Your task to perform on an android device: Search for a new perfume Image 0: 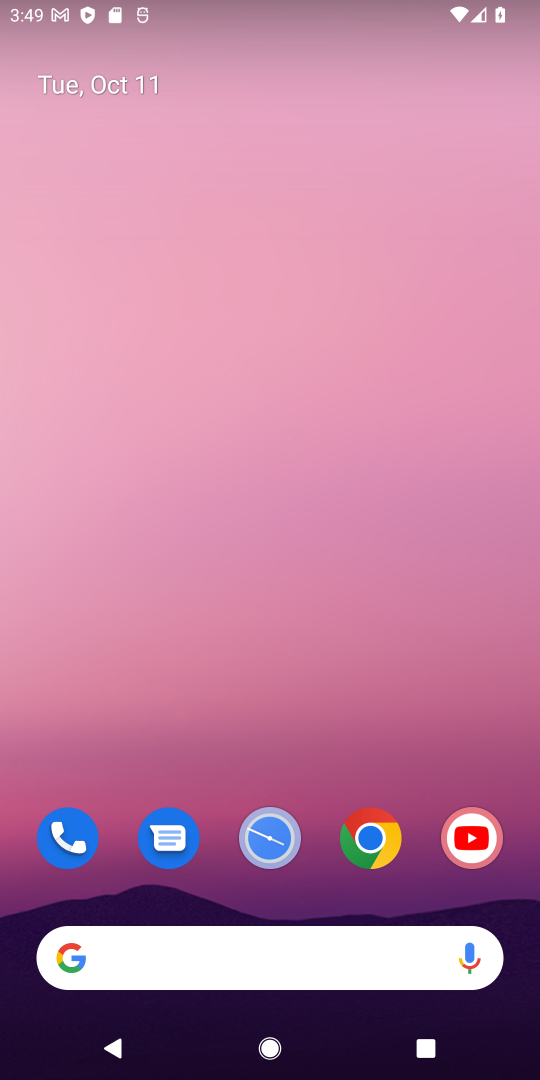
Step 0: click (244, 959)
Your task to perform on an android device: Search for a new perfume Image 1: 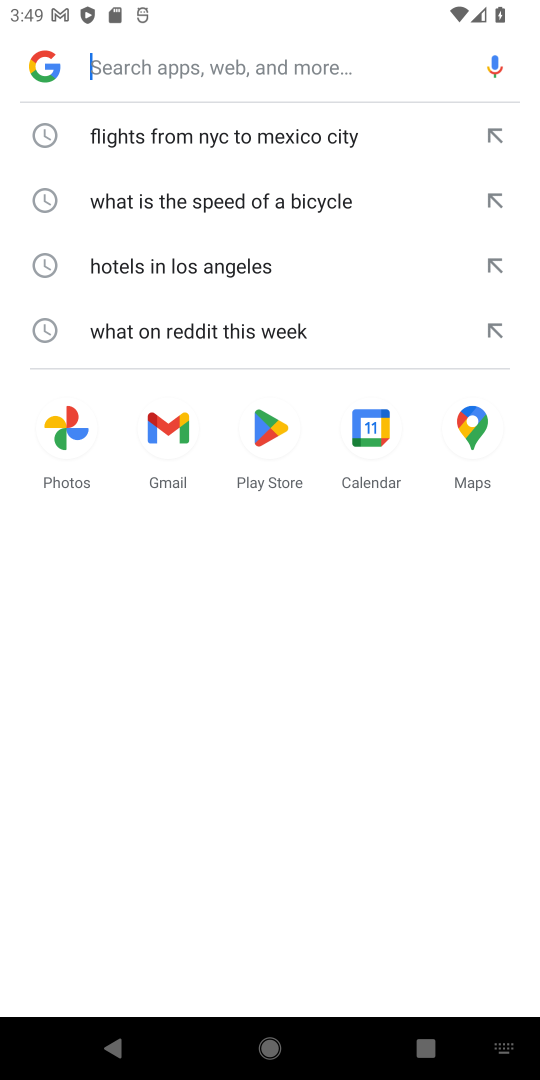
Step 1: click (167, 58)
Your task to perform on an android device: Search for a new perfume Image 2: 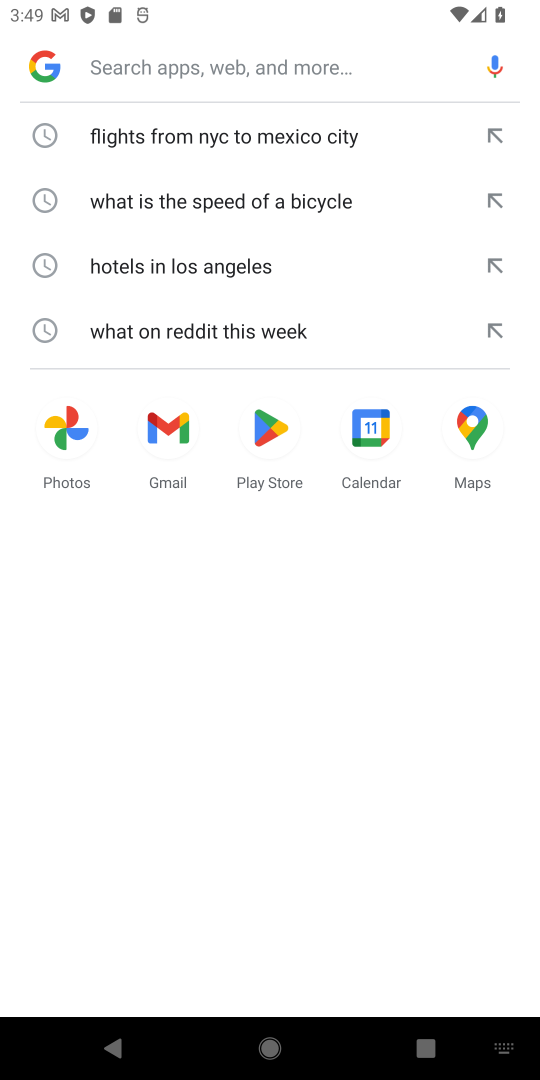
Step 2: type "Search for a new perfume"
Your task to perform on an android device: Search for a new perfume Image 3: 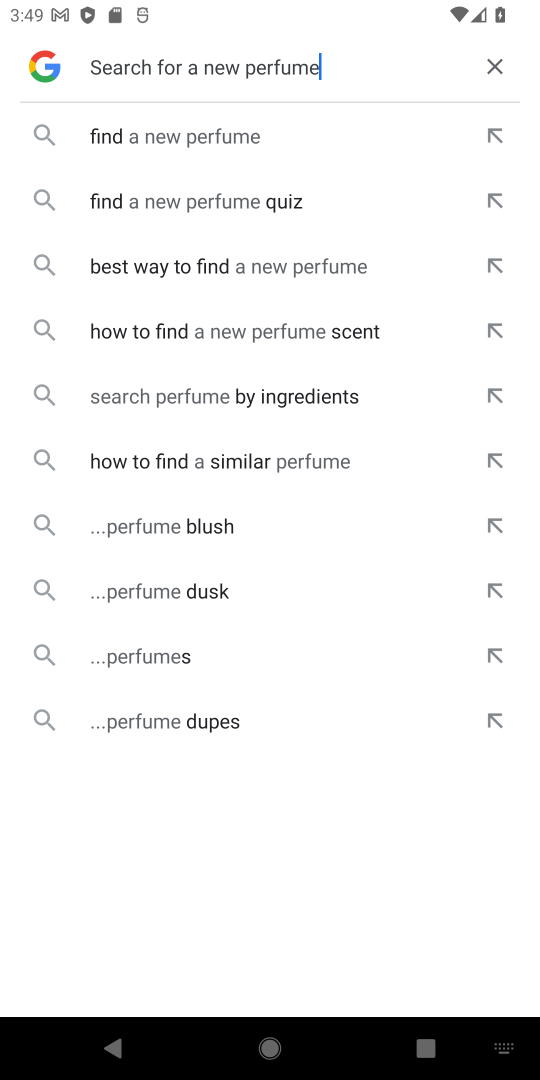
Step 3: click (175, 134)
Your task to perform on an android device: Search for a new perfume Image 4: 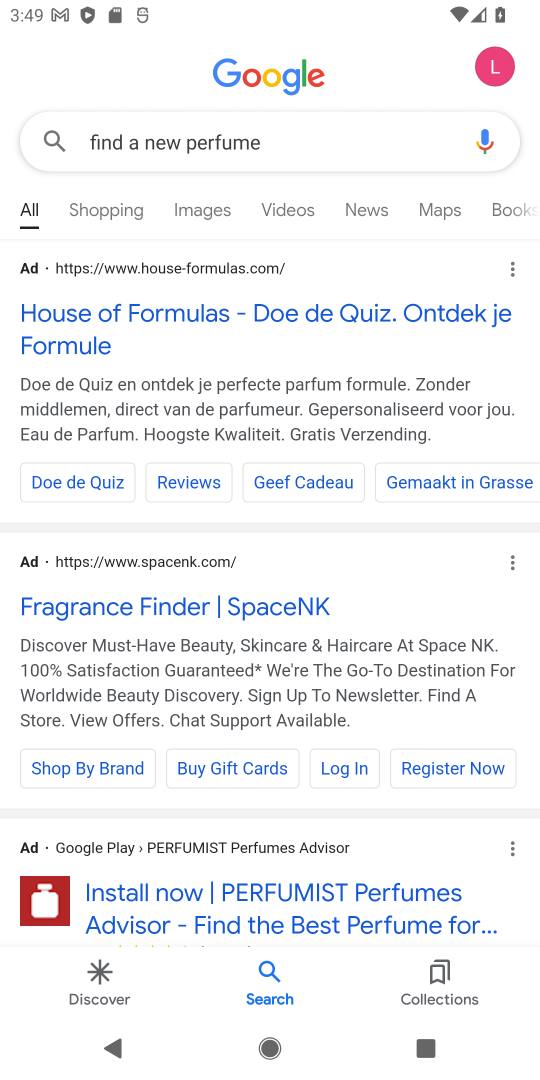
Step 4: task complete